Your task to perform on an android device: find which apps use the phone's location Image 0: 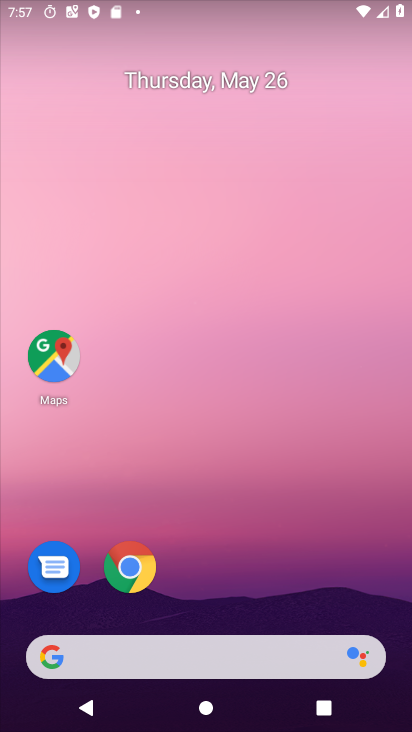
Step 0: drag from (142, 649) to (294, 20)
Your task to perform on an android device: find which apps use the phone's location Image 1: 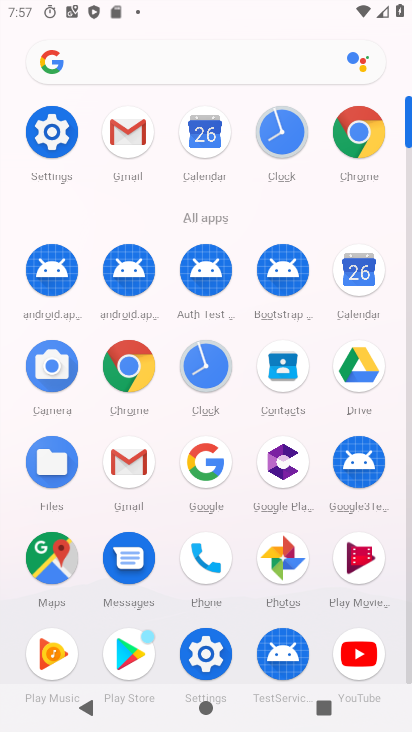
Step 1: click (54, 133)
Your task to perform on an android device: find which apps use the phone's location Image 2: 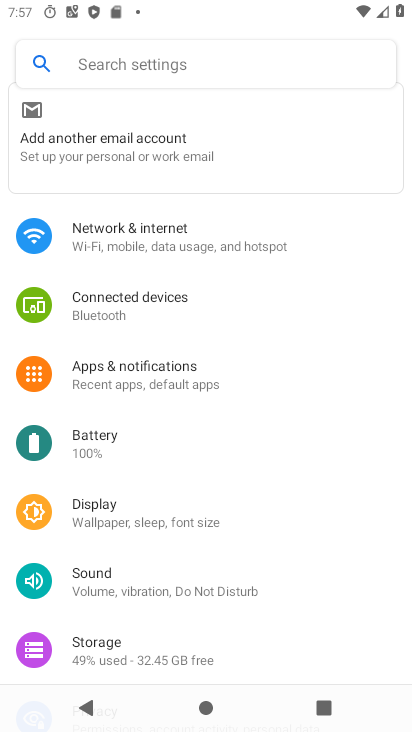
Step 2: drag from (264, 622) to (347, 220)
Your task to perform on an android device: find which apps use the phone's location Image 3: 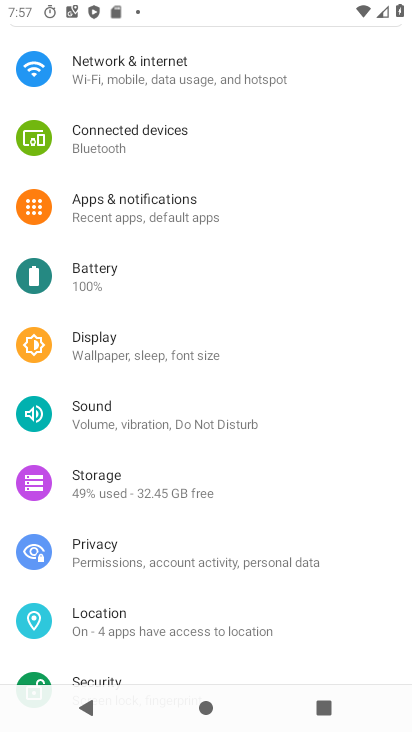
Step 3: click (158, 627)
Your task to perform on an android device: find which apps use the phone's location Image 4: 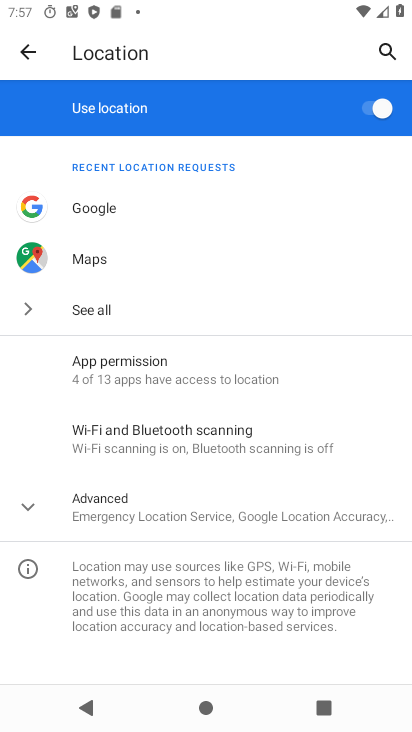
Step 4: click (126, 368)
Your task to perform on an android device: find which apps use the phone's location Image 5: 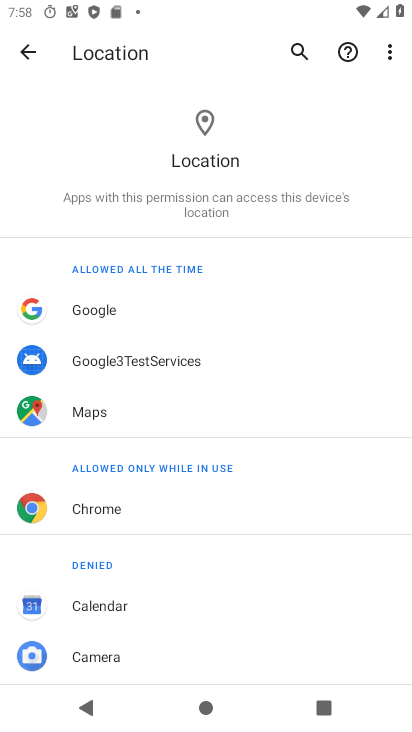
Step 5: drag from (164, 583) to (321, 146)
Your task to perform on an android device: find which apps use the phone's location Image 6: 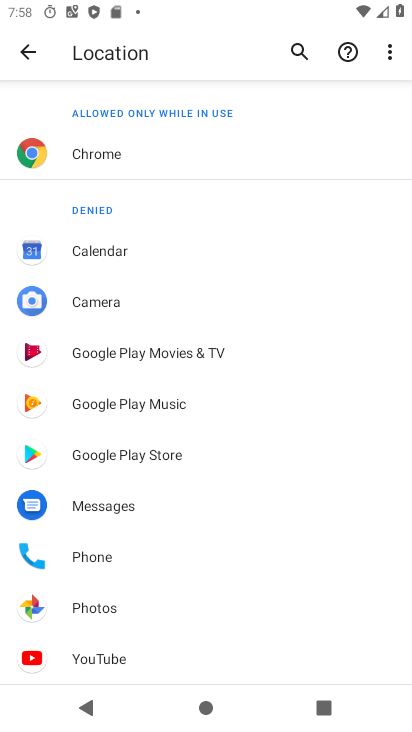
Step 6: drag from (211, 617) to (265, 433)
Your task to perform on an android device: find which apps use the phone's location Image 7: 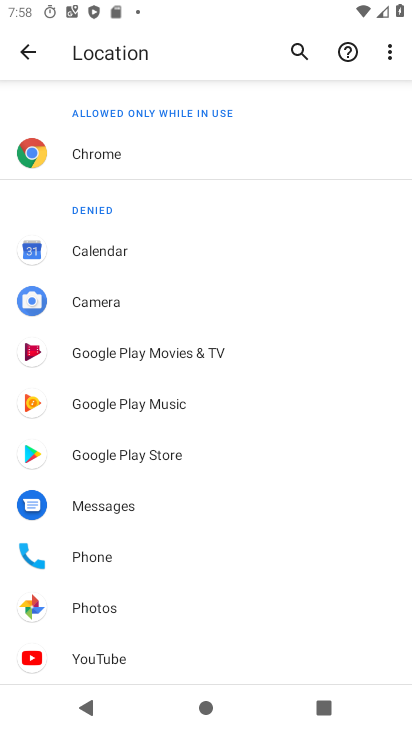
Step 7: click (98, 560)
Your task to perform on an android device: find which apps use the phone's location Image 8: 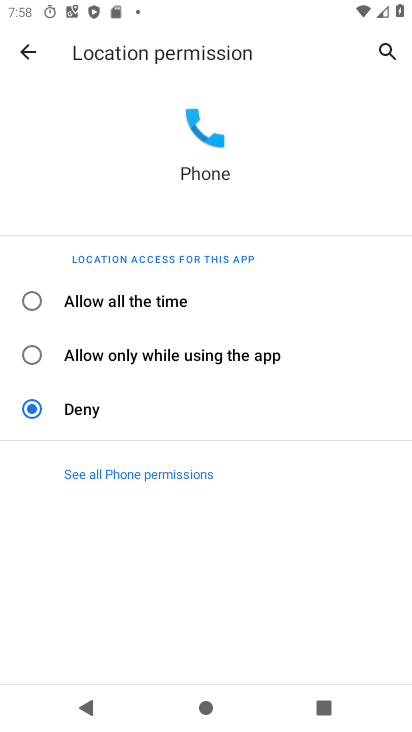
Step 8: task complete